Your task to perform on an android device: Add bose soundlink to the cart on bestbuy Image 0: 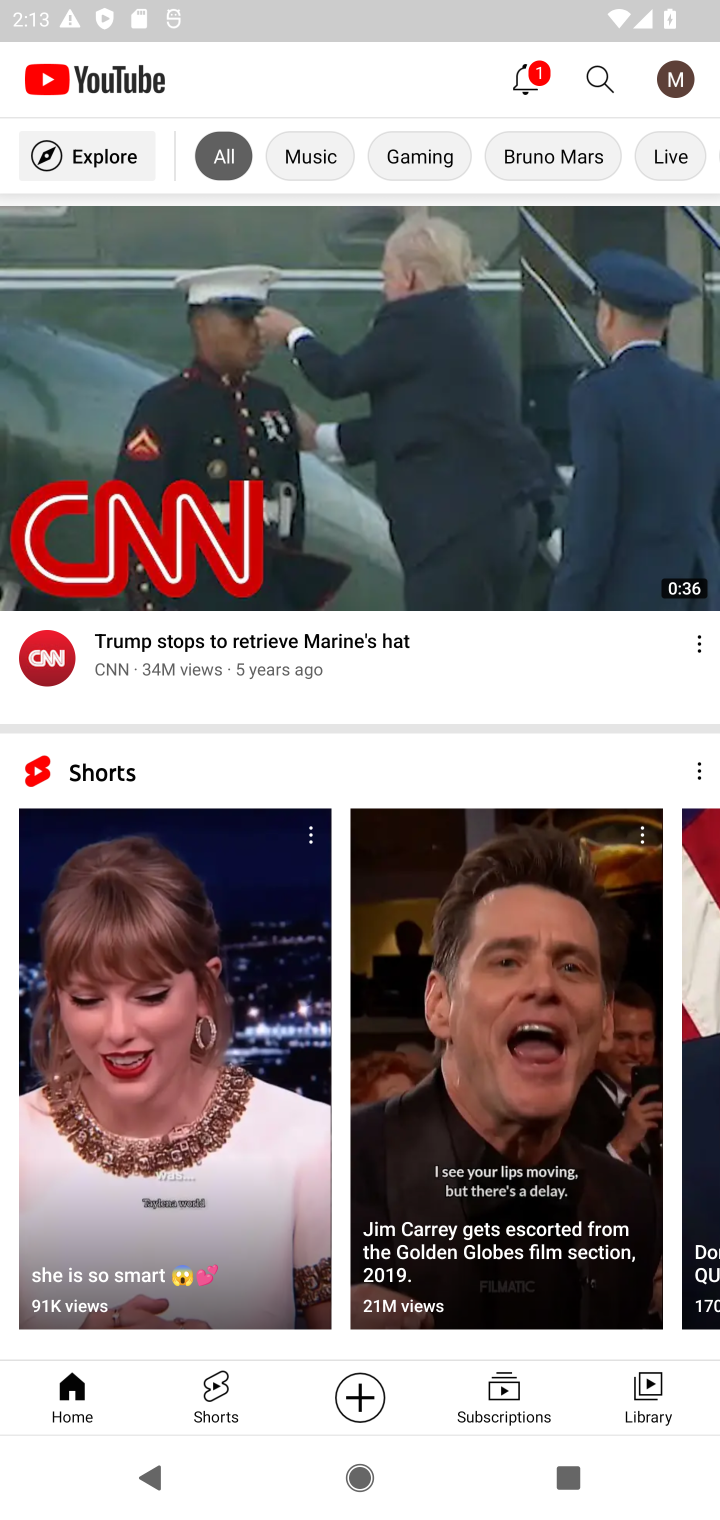
Step 0: press home button
Your task to perform on an android device: Add bose soundlink to the cart on bestbuy Image 1: 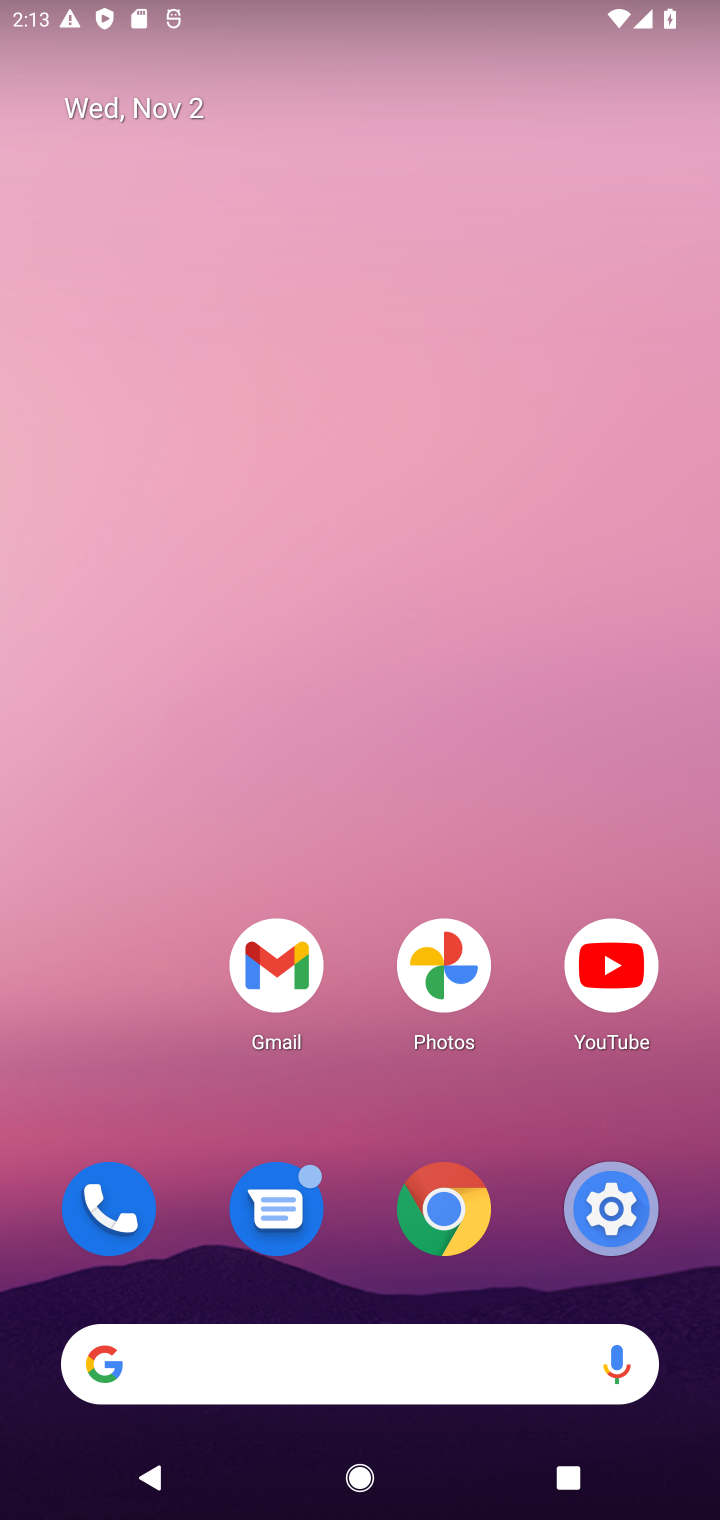
Step 1: click (324, 1371)
Your task to perform on an android device: Add bose soundlink to the cart on bestbuy Image 2: 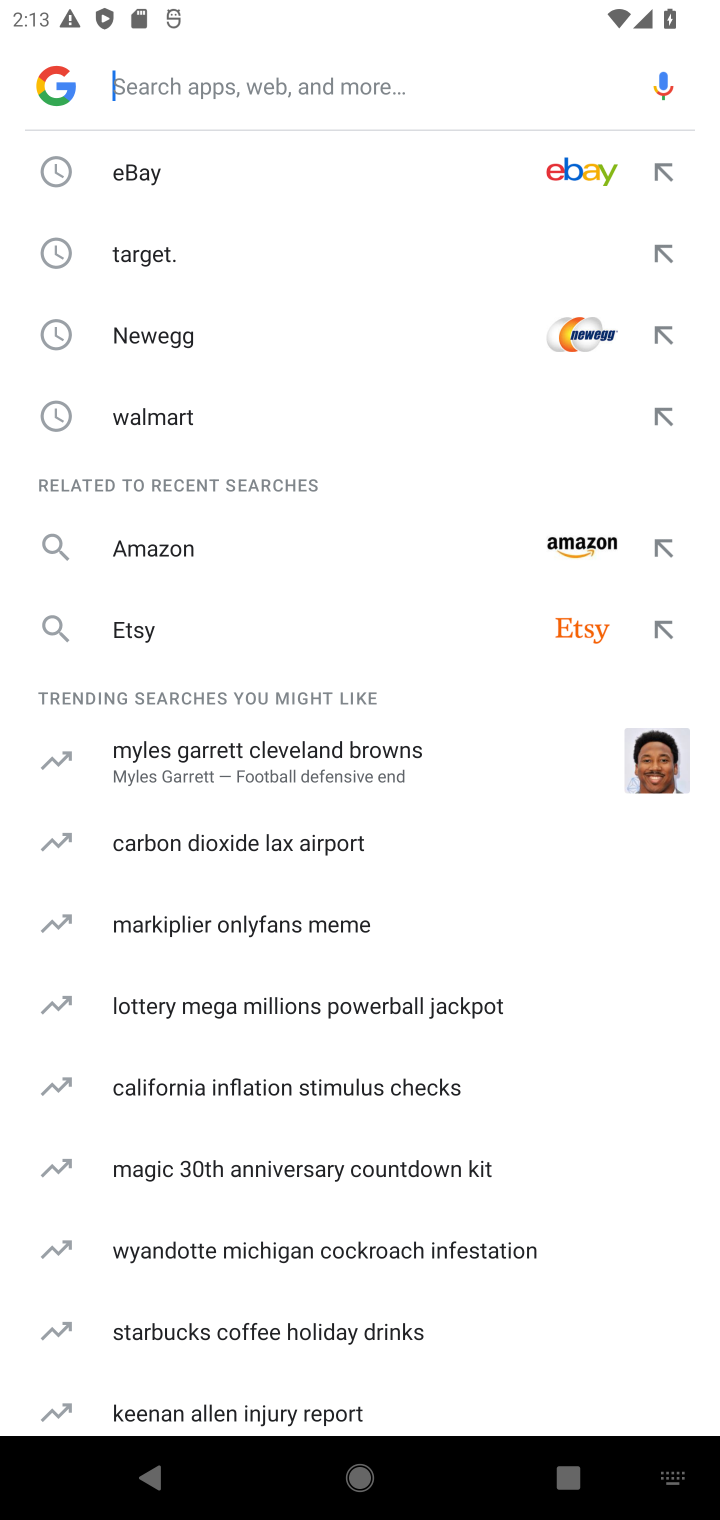
Step 2: type "bestbuy"
Your task to perform on an android device: Add bose soundlink to the cart on bestbuy Image 3: 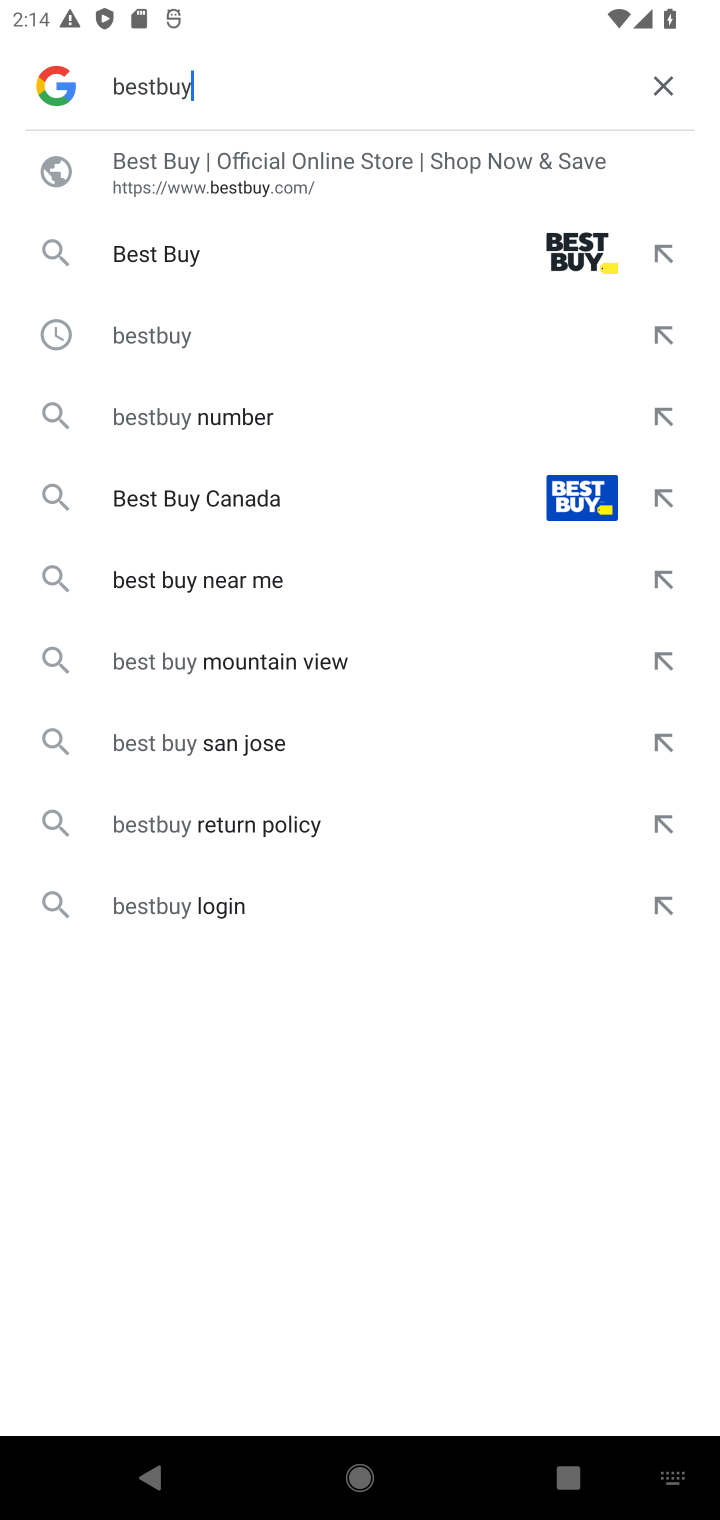
Step 3: click (148, 250)
Your task to perform on an android device: Add bose soundlink to the cart on bestbuy Image 4: 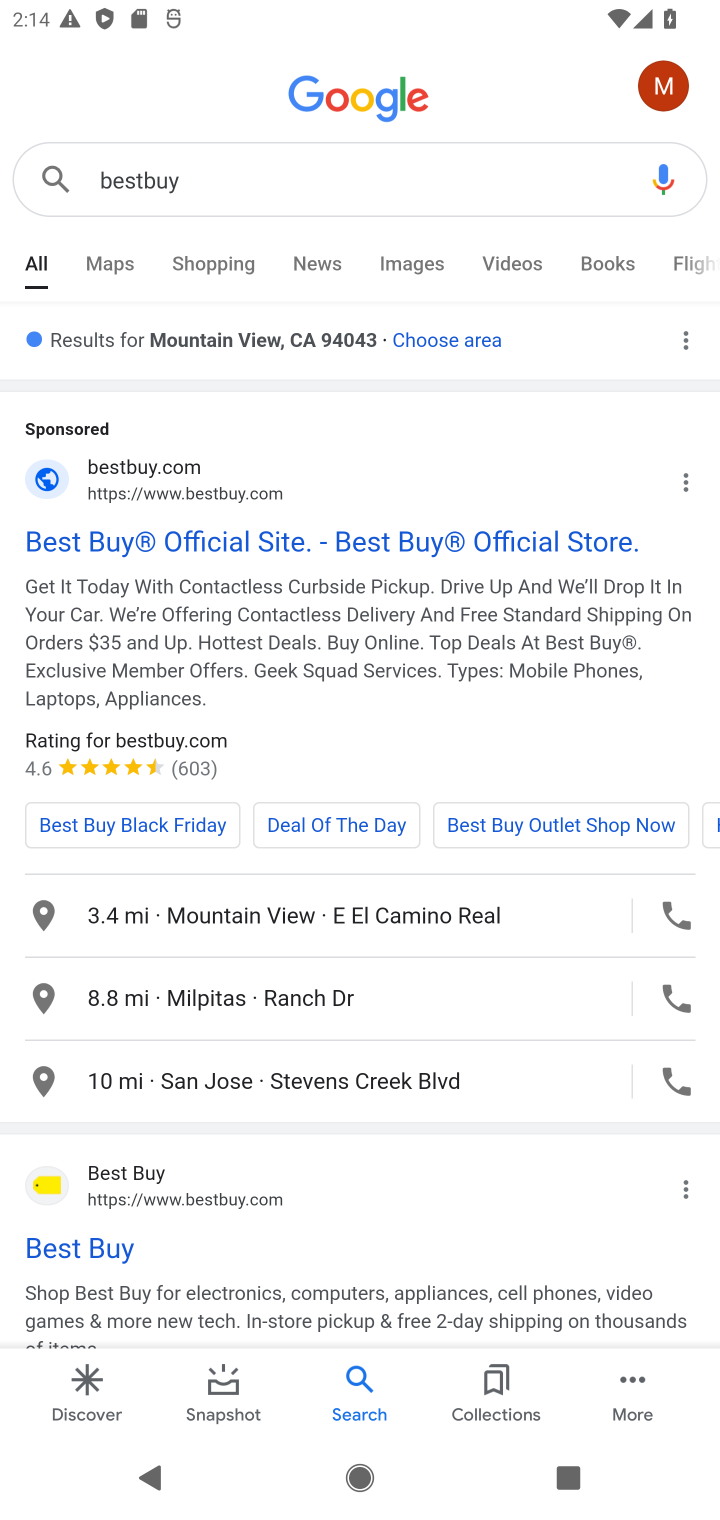
Step 4: click (88, 1243)
Your task to perform on an android device: Add bose soundlink to the cart on bestbuy Image 5: 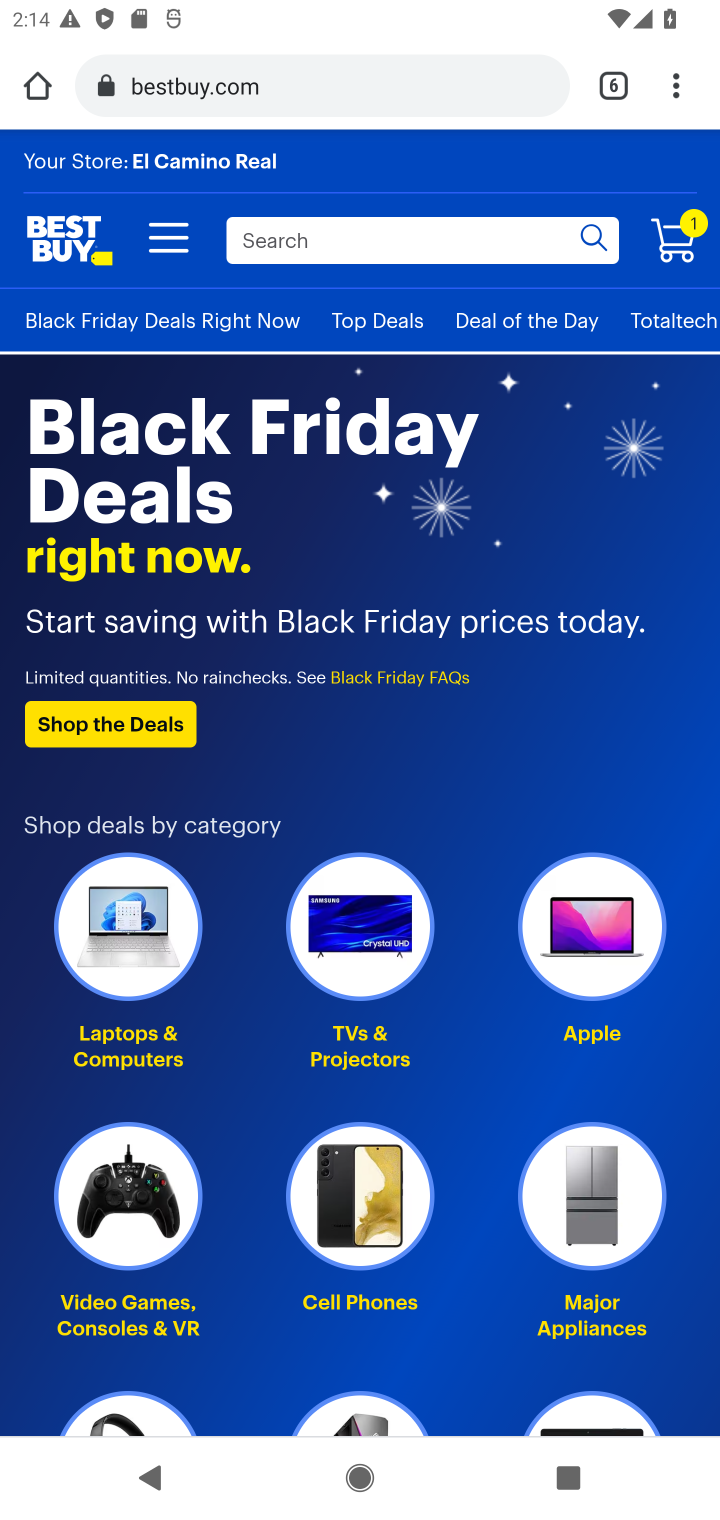
Step 5: click (292, 233)
Your task to perform on an android device: Add bose soundlink to the cart on bestbuy Image 6: 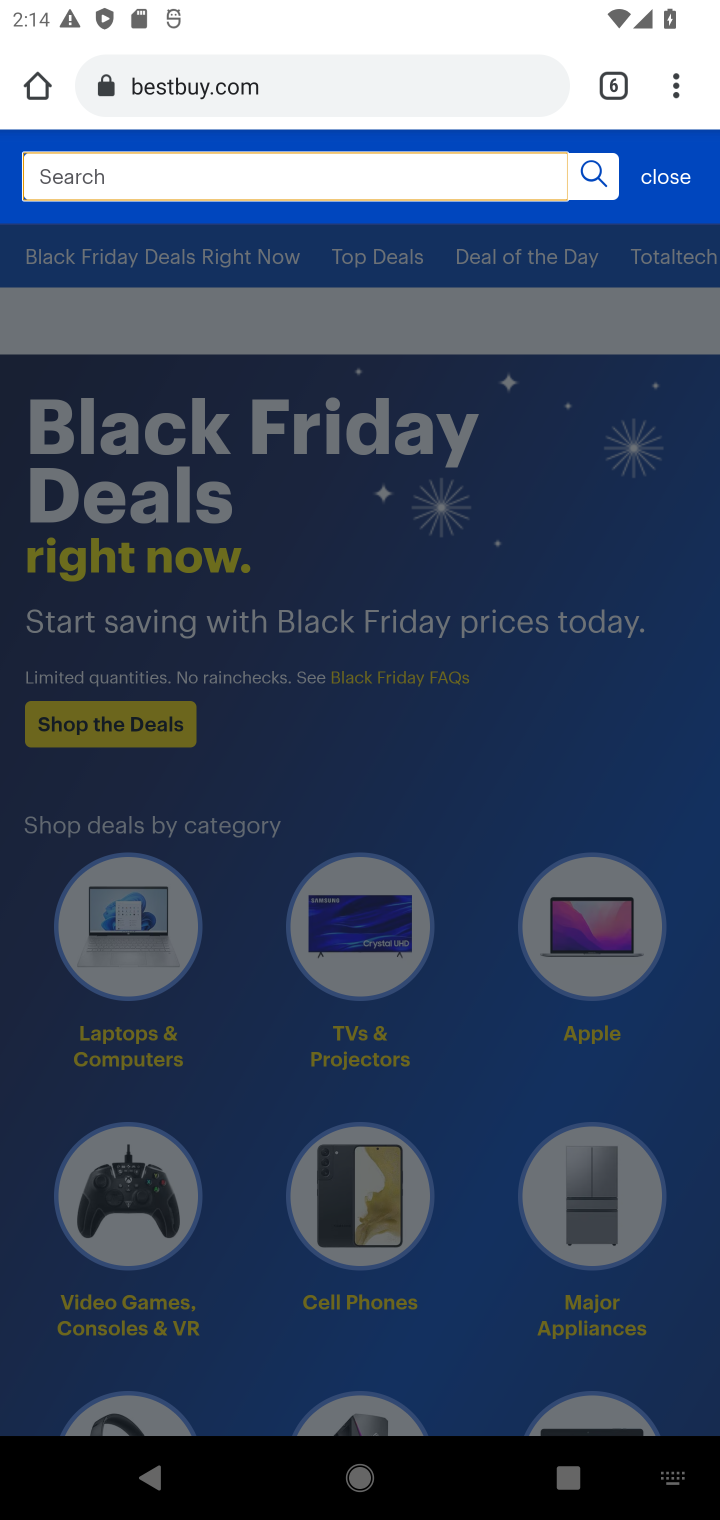
Step 6: type "bose soundlink"
Your task to perform on an android device: Add bose soundlink to the cart on bestbuy Image 7: 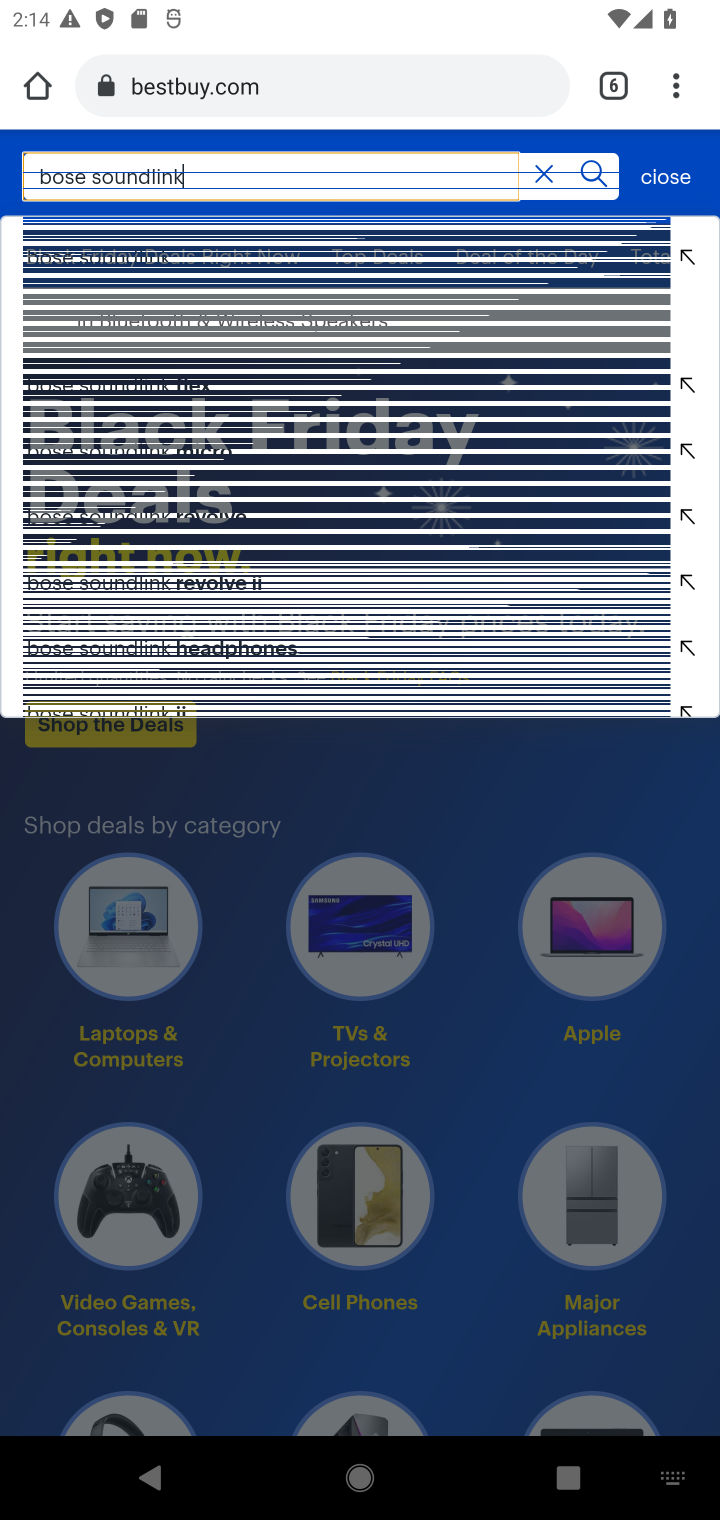
Step 7: click (122, 257)
Your task to perform on an android device: Add bose soundlink to the cart on bestbuy Image 8: 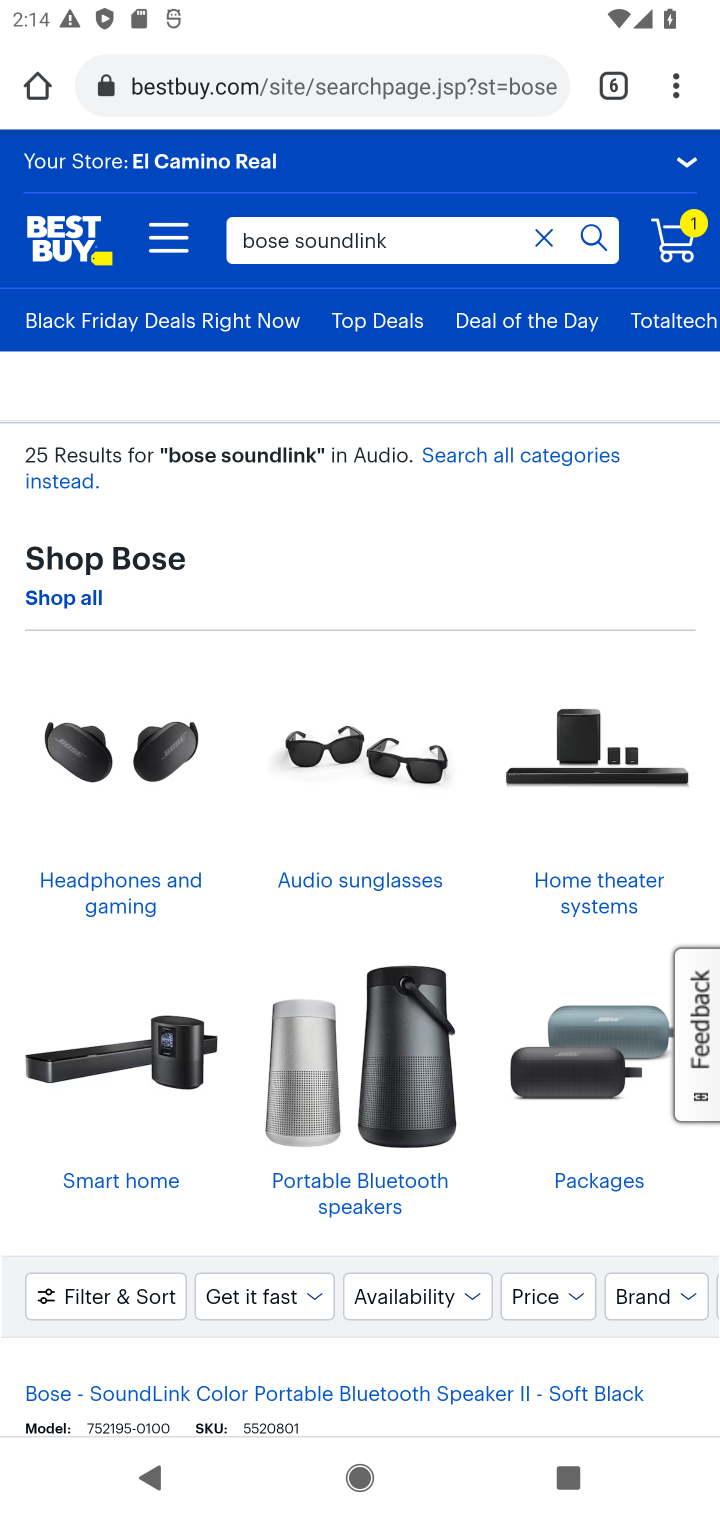
Step 8: click (103, 783)
Your task to perform on an android device: Add bose soundlink to the cart on bestbuy Image 9: 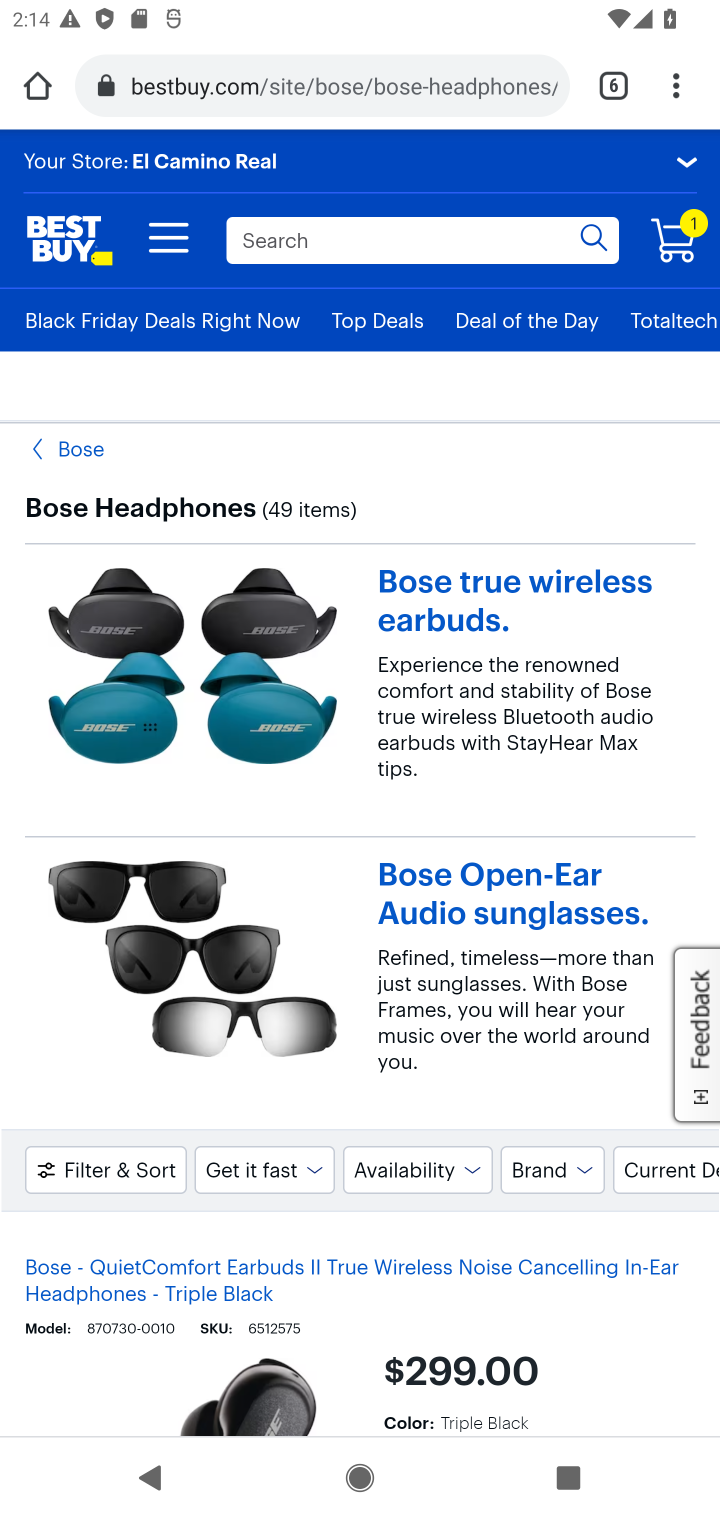
Step 9: drag from (587, 1071) to (537, 470)
Your task to perform on an android device: Add bose soundlink to the cart on bestbuy Image 10: 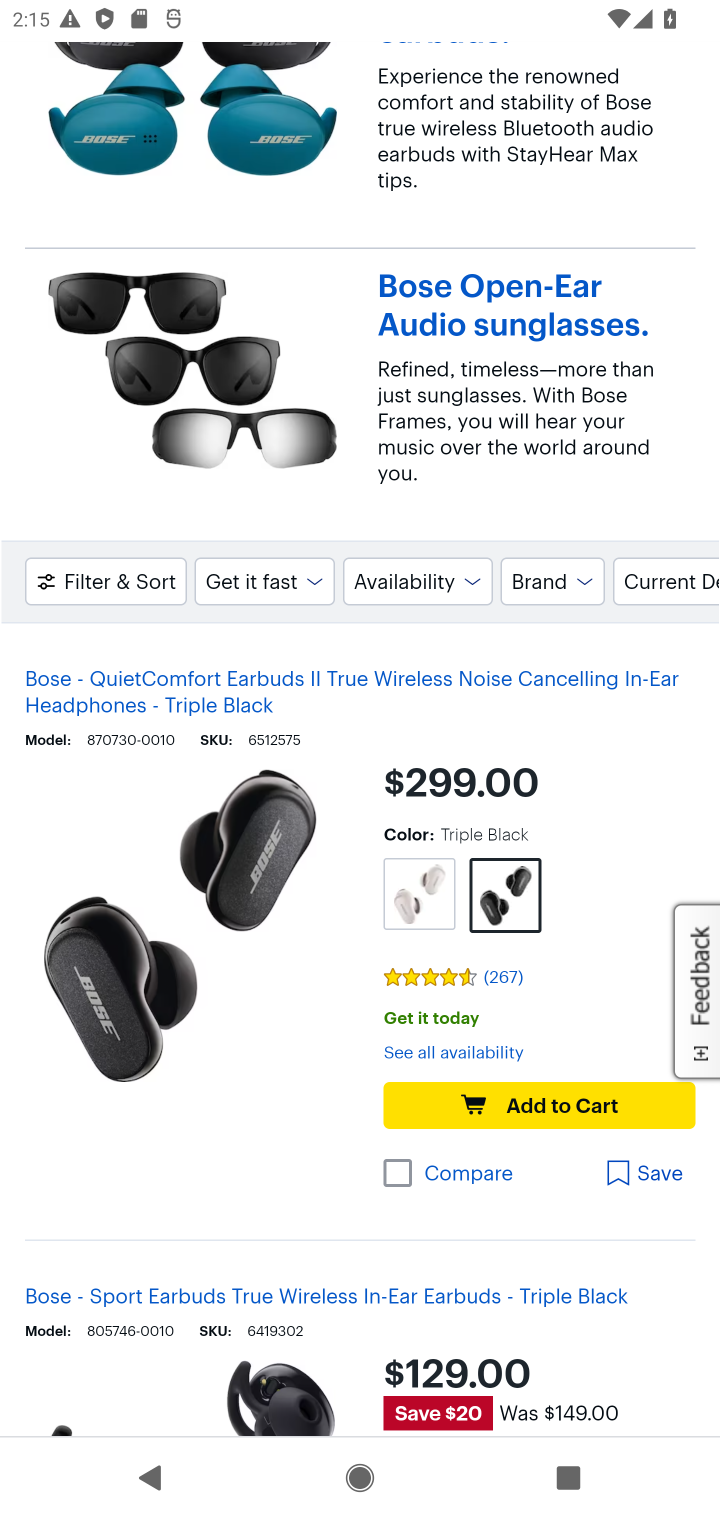
Step 10: click (484, 1106)
Your task to perform on an android device: Add bose soundlink to the cart on bestbuy Image 11: 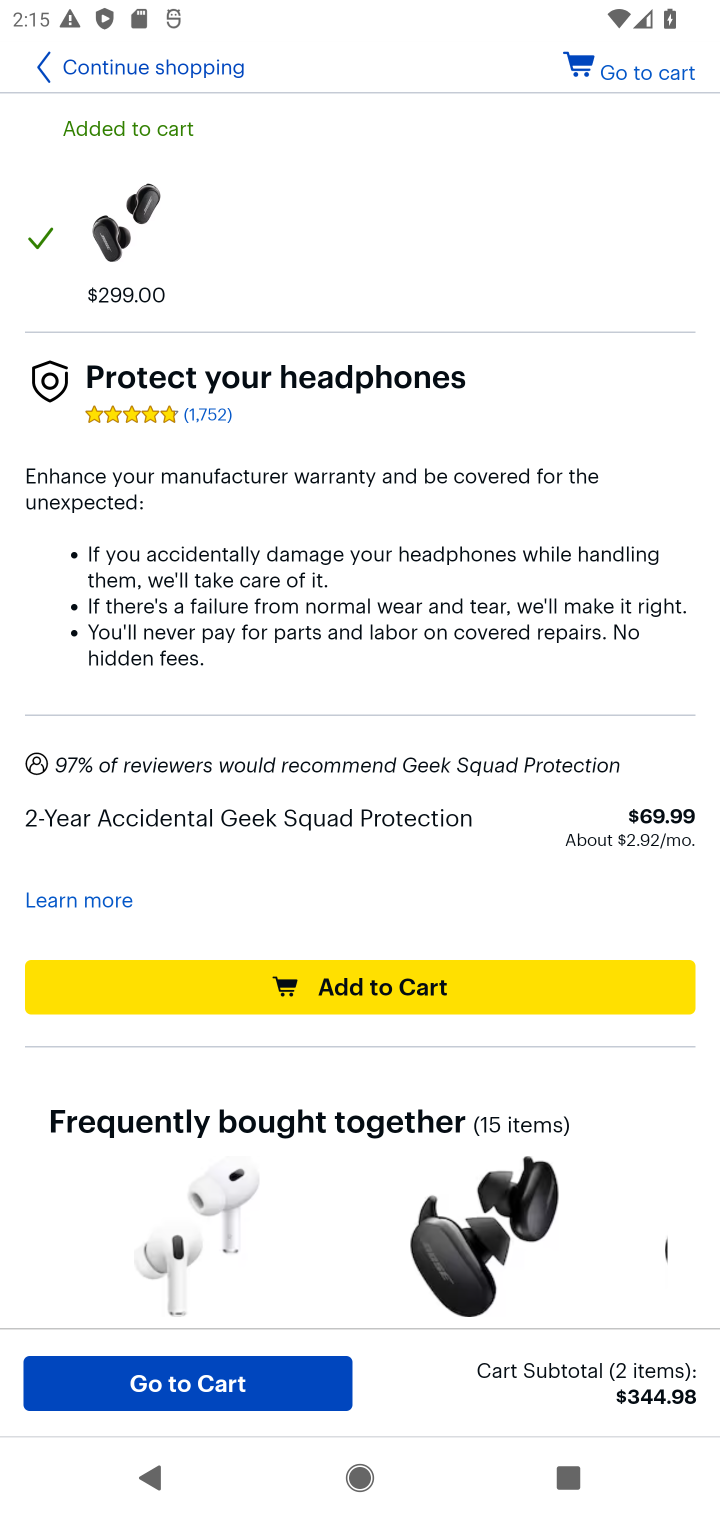
Step 11: click (362, 979)
Your task to perform on an android device: Add bose soundlink to the cart on bestbuy Image 12: 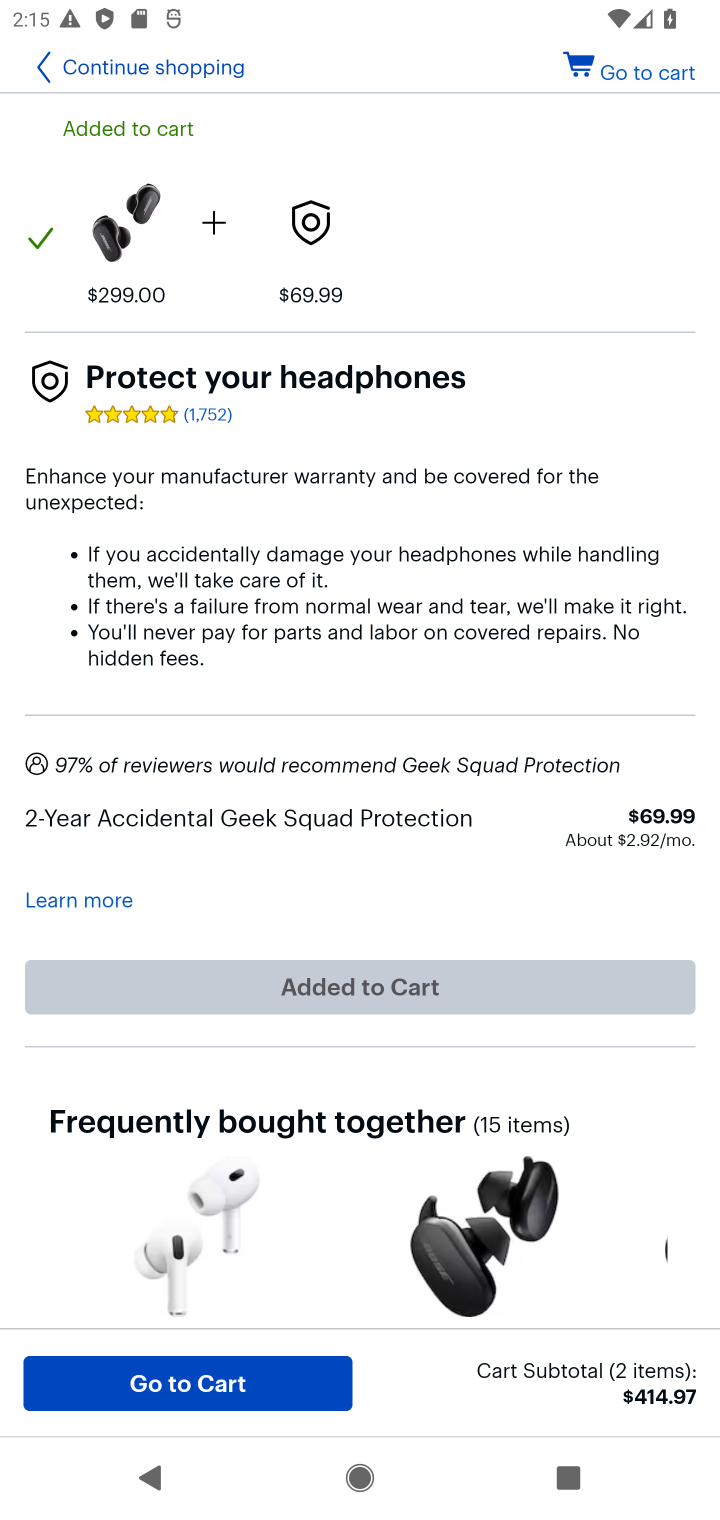
Step 12: task complete